Your task to perform on an android device: Open Google Maps and go to "Timeline" Image 0: 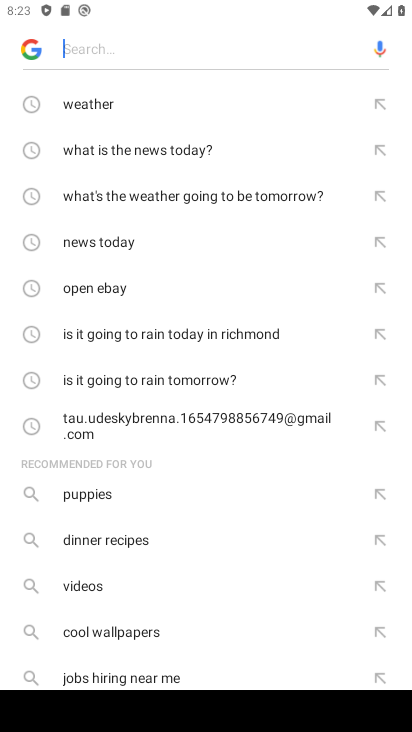
Step 0: press home button
Your task to perform on an android device: Open Google Maps and go to "Timeline" Image 1: 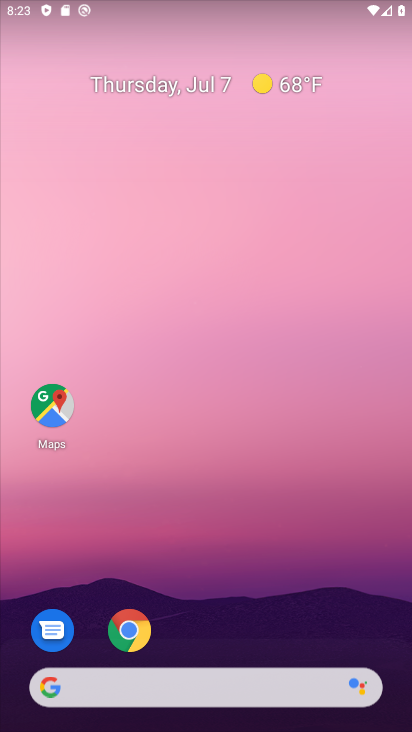
Step 1: click (55, 407)
Your task to perform on an android device: Open Google Maps and go to "Timeline" Image 2: 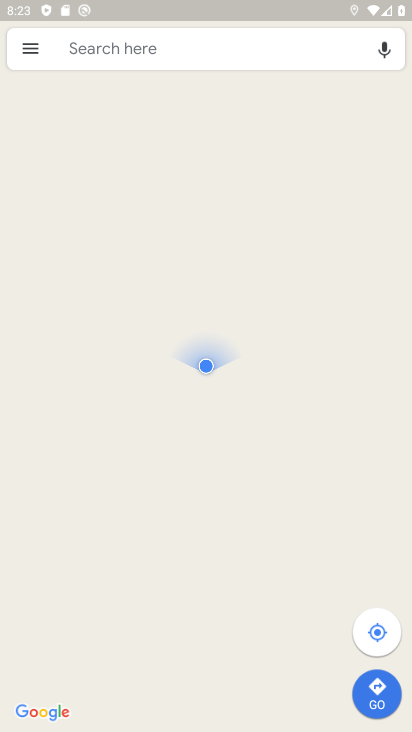
Step 2: click (32, 47)
Your task to perform on an android device: Open Google Maps and go to "Timeline" Image 3: 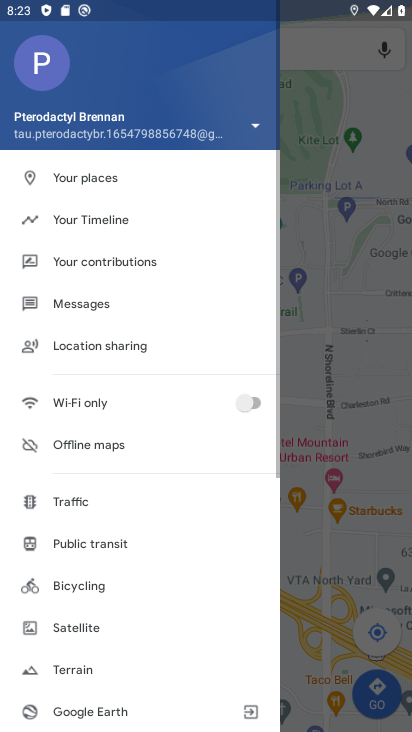
Step 3: click (104, 220)
Your task to perform on an android device: Open Google Maps and go to "Timeline" Image 4: 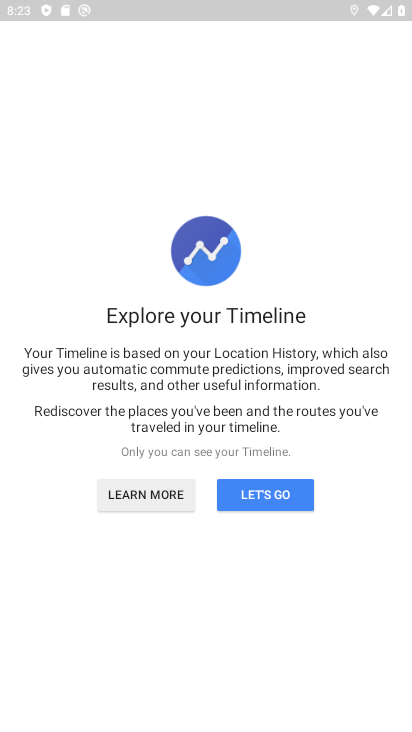
Step 4: click (271, 501)
Your task to perform on an android device: Open Google Maps and go to "Timeline" Image 5: 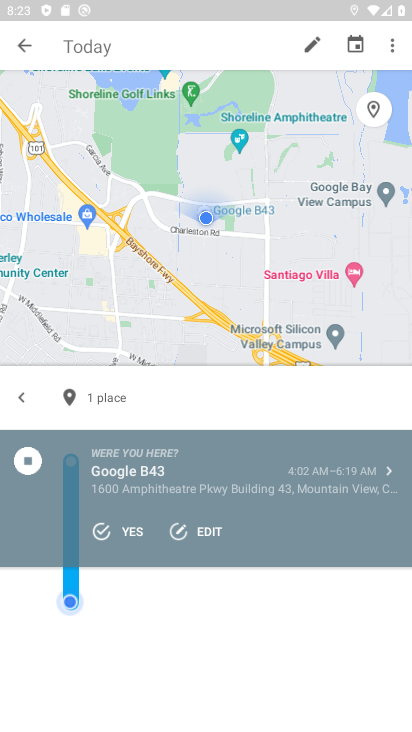
Step 5: task complete